Your task to perform on an android device: Show me the alarms in the clock app Image 0: 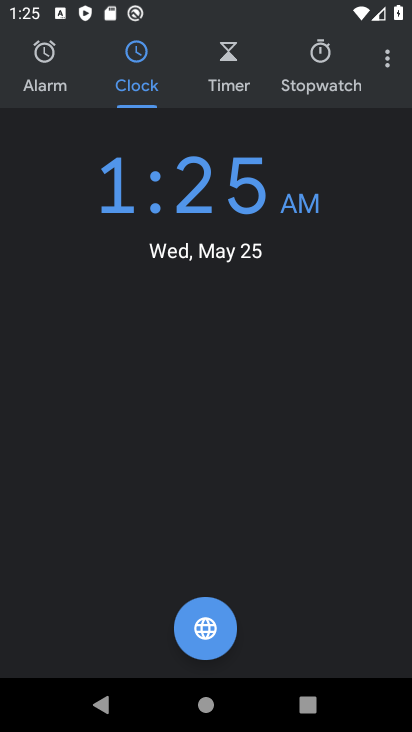
Step 0: click (34, 83)
Your task to perform on an android device: Show me the alarms in the clock app Image 1: 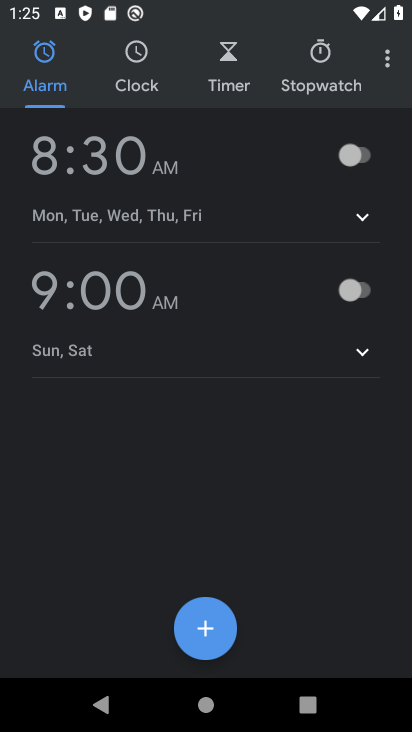
Step 1: task complete